Your task to perform on an android device: turn on location history Image 0: 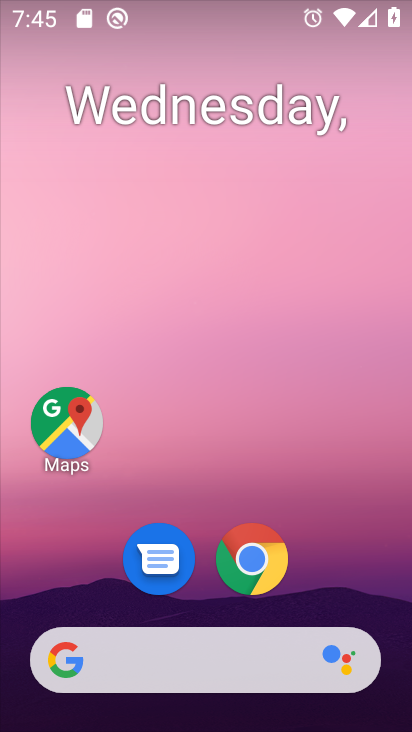
Step 0: drag from (356, 574) to (325, 238)
Your task to perform on an android device: turn on location history Image 1: 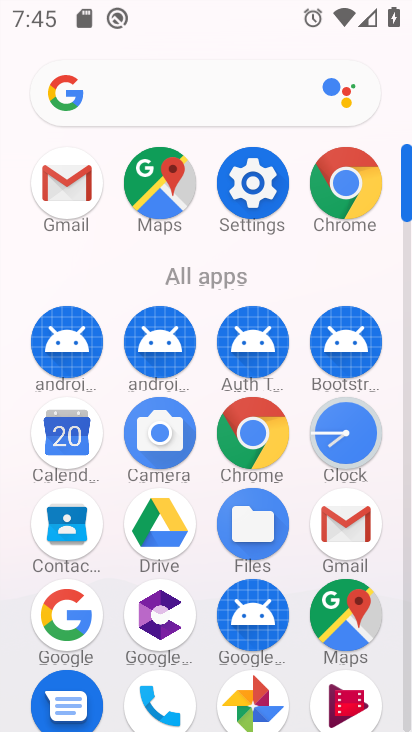
Step 1: click (254, 203)
Your task to perform on an android device: turn on location history Image 2: 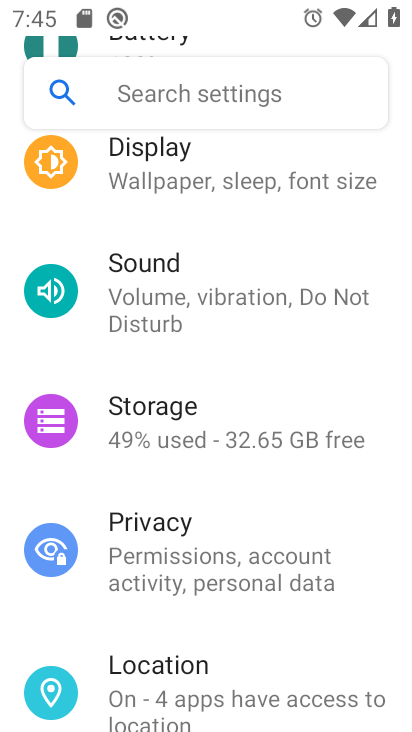
Step 2: drag from (231, 626) to (246, 290)
Your task to perform on an android device: turn on location history Image 3: 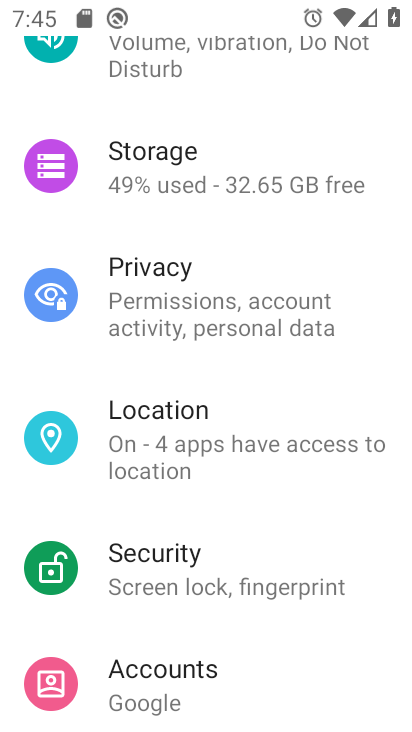
Step 3: click (222, 445)
Your task to perform on an android device: turn on location history Image 4: 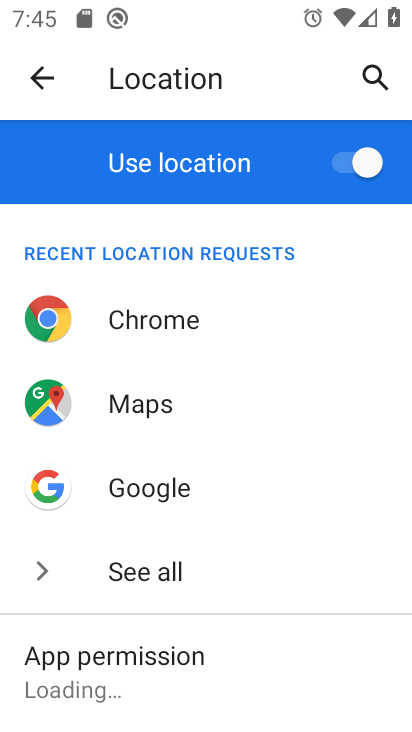
Step 4: drag from (326, 657) to (325, 332)
Your task to perform on an android device: turn on location history Image 5: 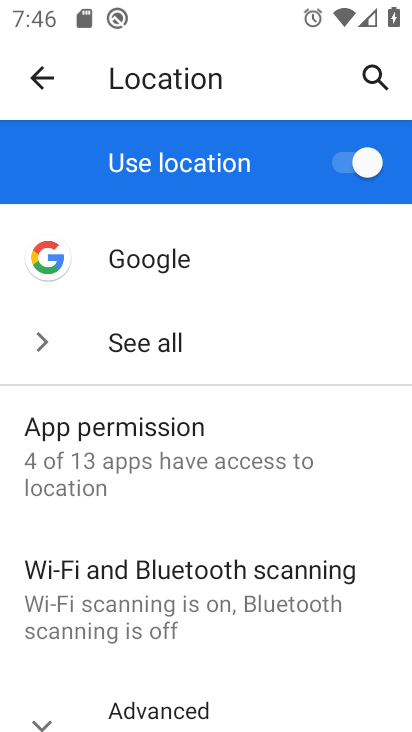
Step 5: drag from (325, 606) to (322, 343)
Your task to perform on an android device: turn on location history Image 6: 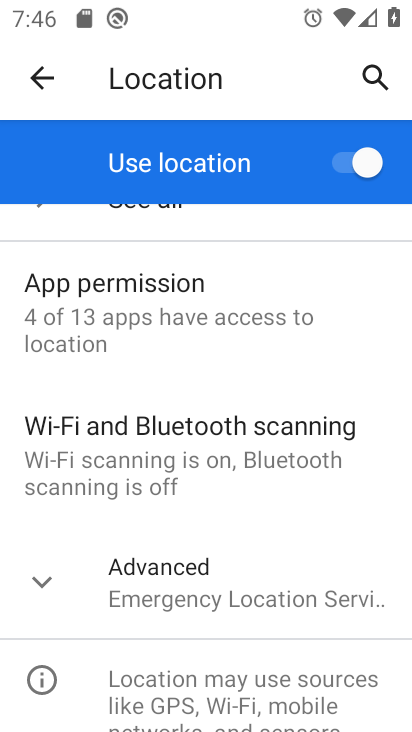
Step 6: click (230, 612)
Your task to perform on an android device: turn on location history Image 7: 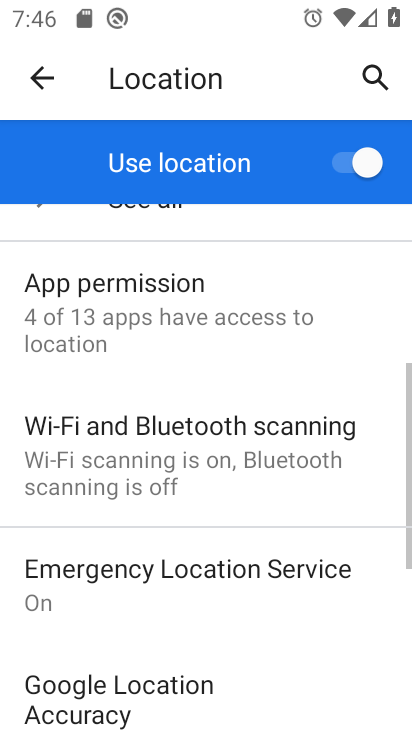
Step 7: task complete